Your task to perform on an android device: add a contact Image 0: 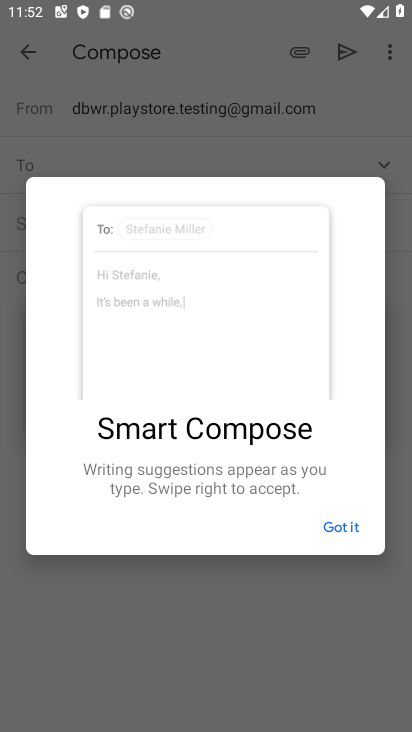
Step 0: press home button
Your task to perform on an android device: add a contact Image 1: 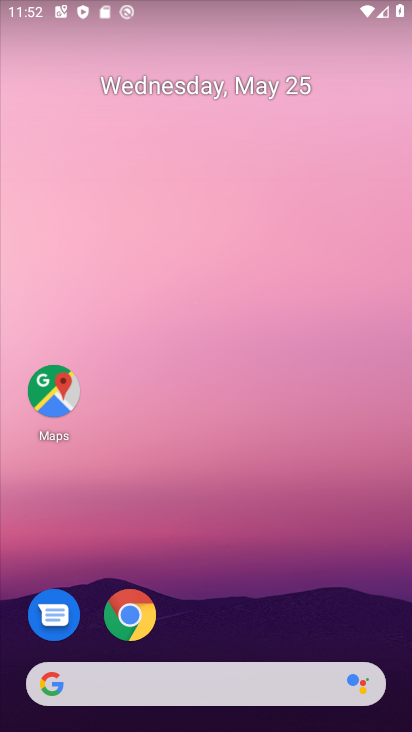
Step 1: drag from (251, 612) to (160, 80)
Your task to perform on an android device: add a contact Image 2: 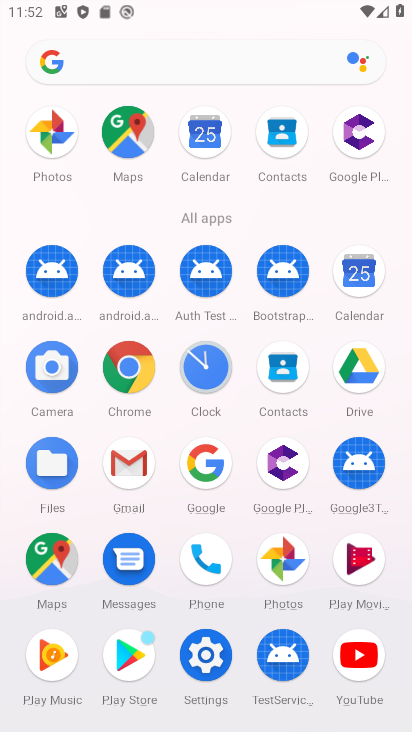
Step 2: click (278, 149)
Your task to perform on an android device: add a contact Image 3: 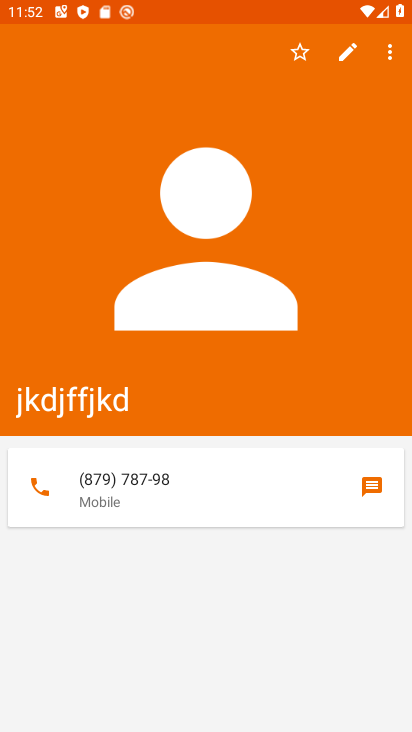
Step 3: press back button
Your task to perform on an android device: add a contact Image 4: 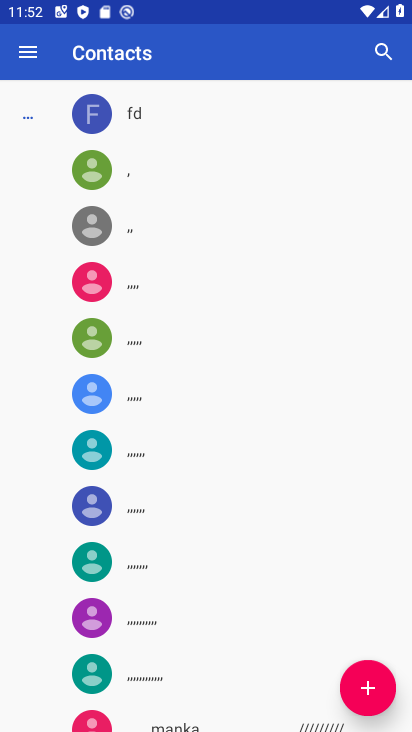
Step 4: click (378, 683)
Your task to perform on an android device: add a contact Image 5: 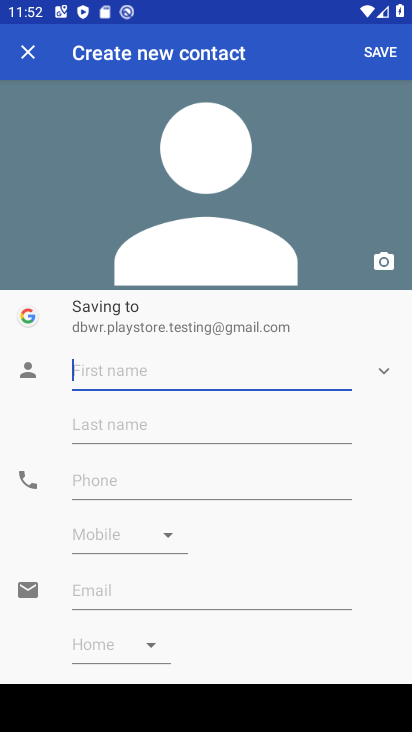
Step 5: click (128, 382)
Your task to perform on an android device: add a contact Image 6: 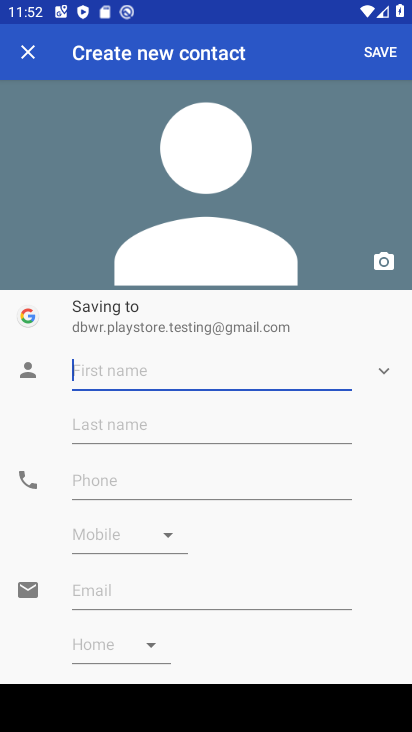
Step 6: type "vhvbjhvj"
Your task to perform on an android device: add a contact Image 7: 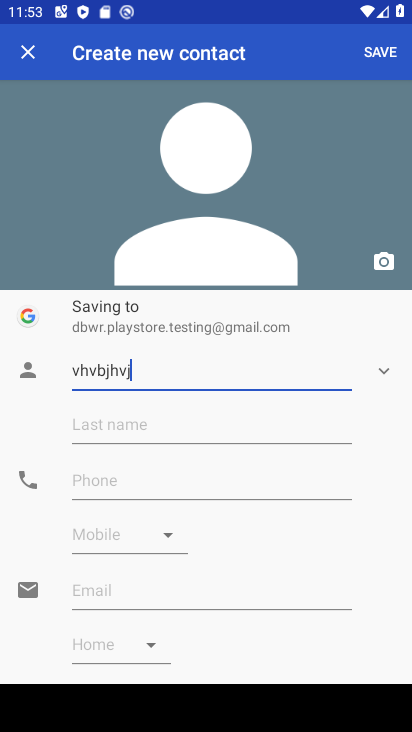
Step 7: click (346, 481)
Your task to perform on an android device: add a contact Image 8: 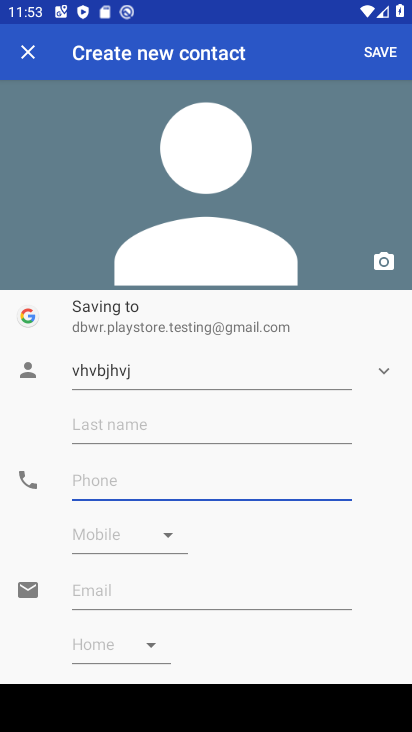
Step 8: type "6878788876"
Your task to perform on an android device: add a contact Image 9: 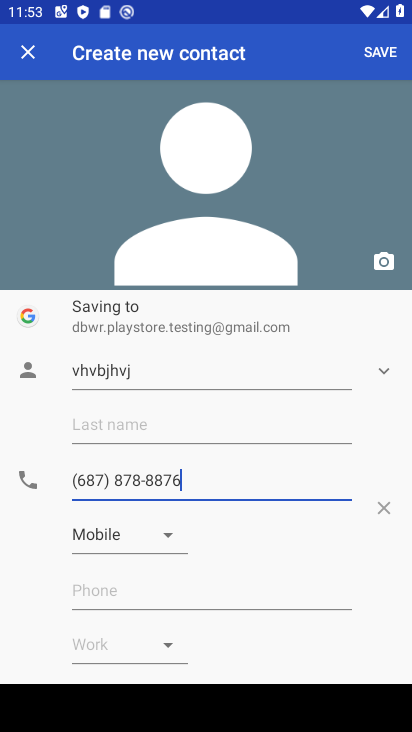
Step 9: click (380, 47)
Your task to perform on an android device: add a contact Image 10: 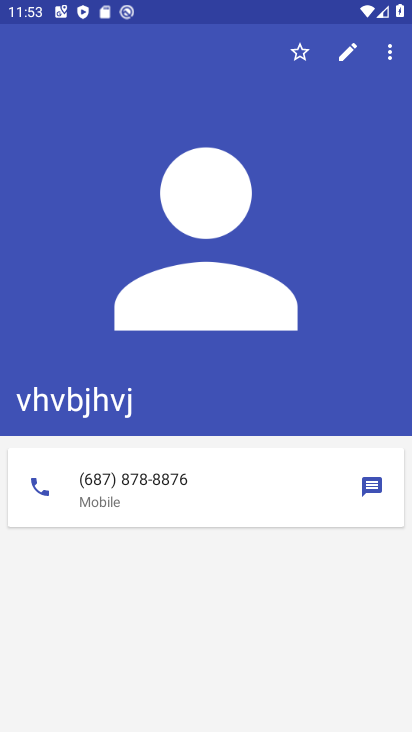
Step 10: task complete